Your task to perform on an android device: see tabs open on other devices in the chrome app Image 0: 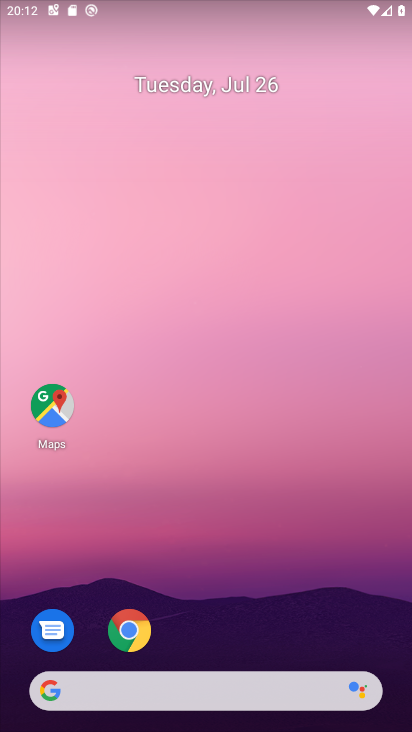
Step 0: click (121, 624)
Your task to perform on an android device: see tabs open on other devices in the chrome app Image 1: 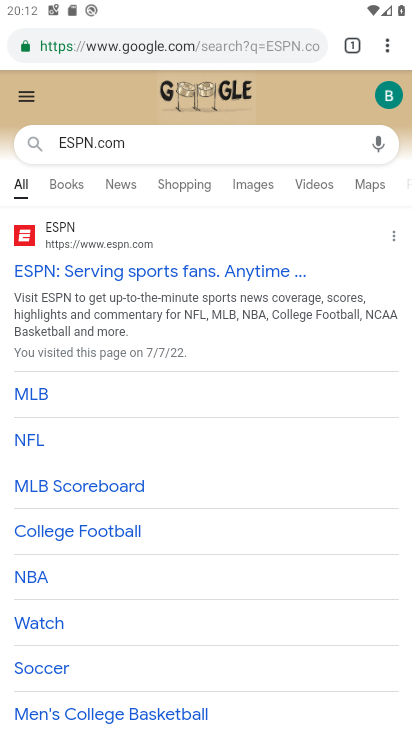
Step 1: click (387, 43)
Your task to perform on an android device: see tabs open on other devices in the chrome app Image 2: 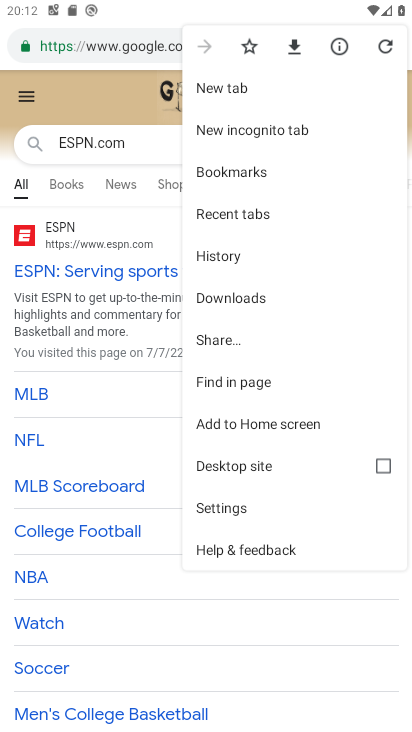
Step 2: click (236, 212)
Your task to perform on an android device: see tabs open on other devices in the chrome app Image 3: 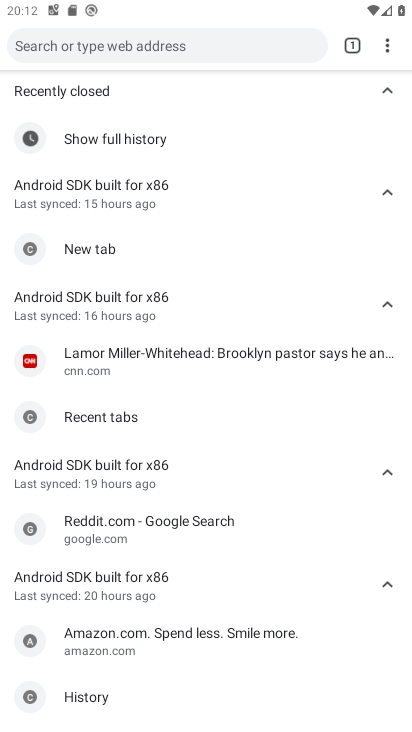
Step 3: task complete